Your task to perform on an android device: Go to Amazon Image 0: 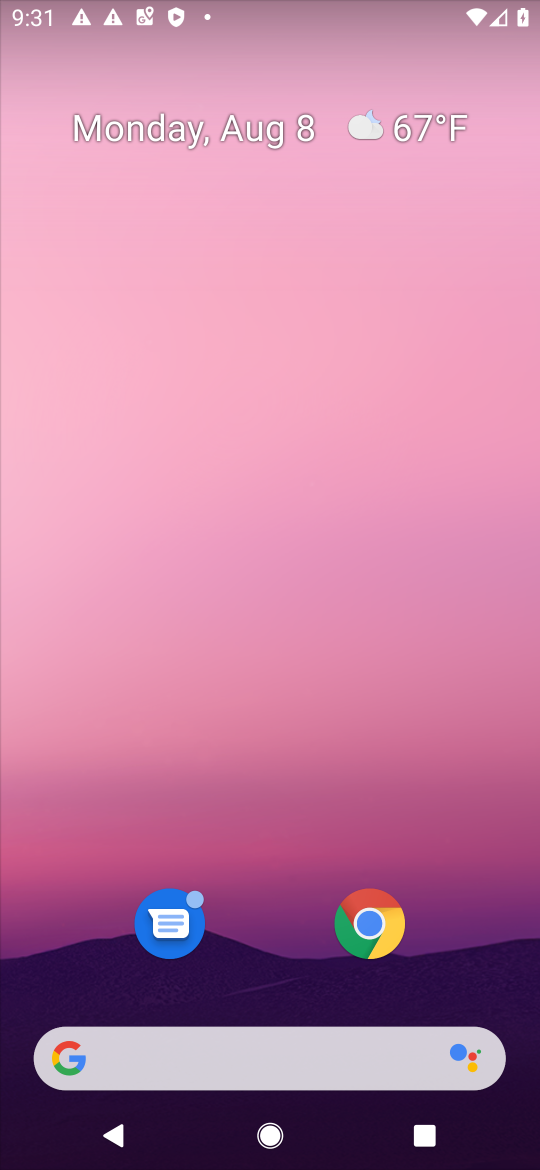
Step 0: click (114, 1069)
Your task to perform on an android device: Go to Amazon Image 1: 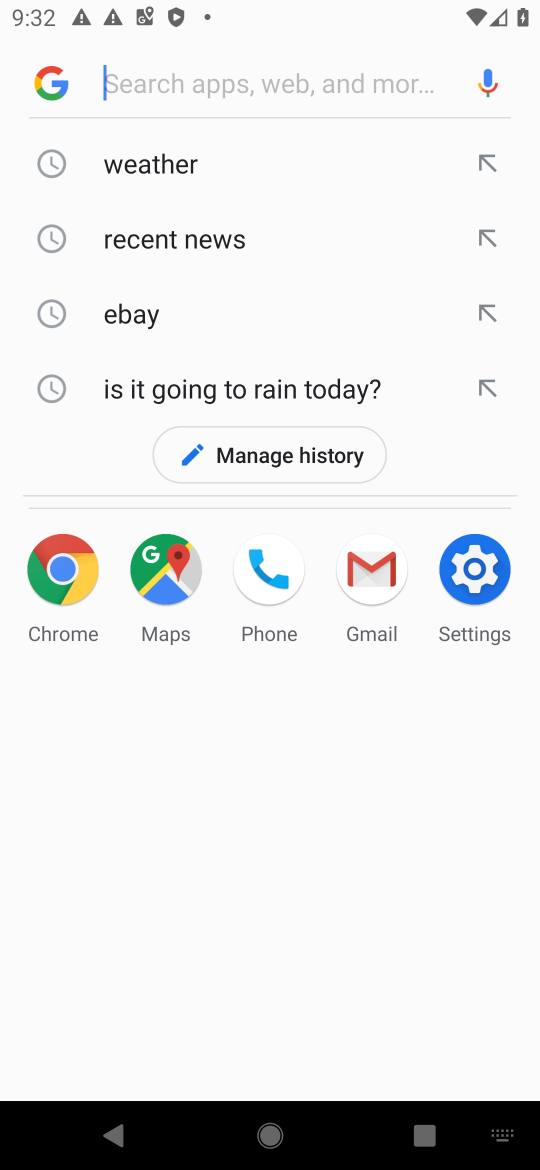
Step 1: type "Amazon"
Your task to perform on an android device: Go to Amazon Image 2: 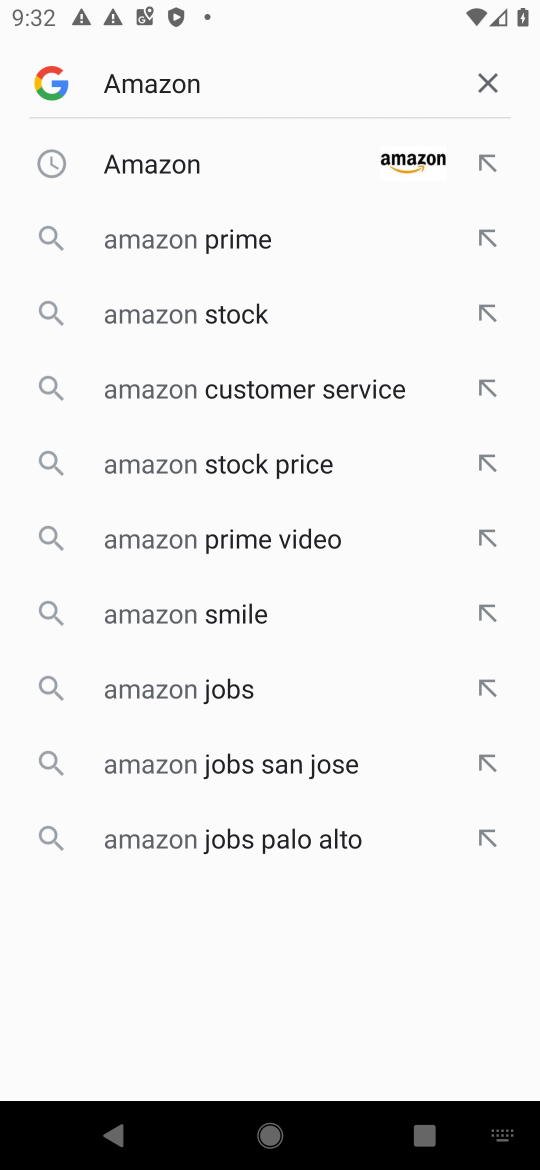
Step 2: click (129, 147)
Your task to perform on an android device: Go to Amazon Image 3: 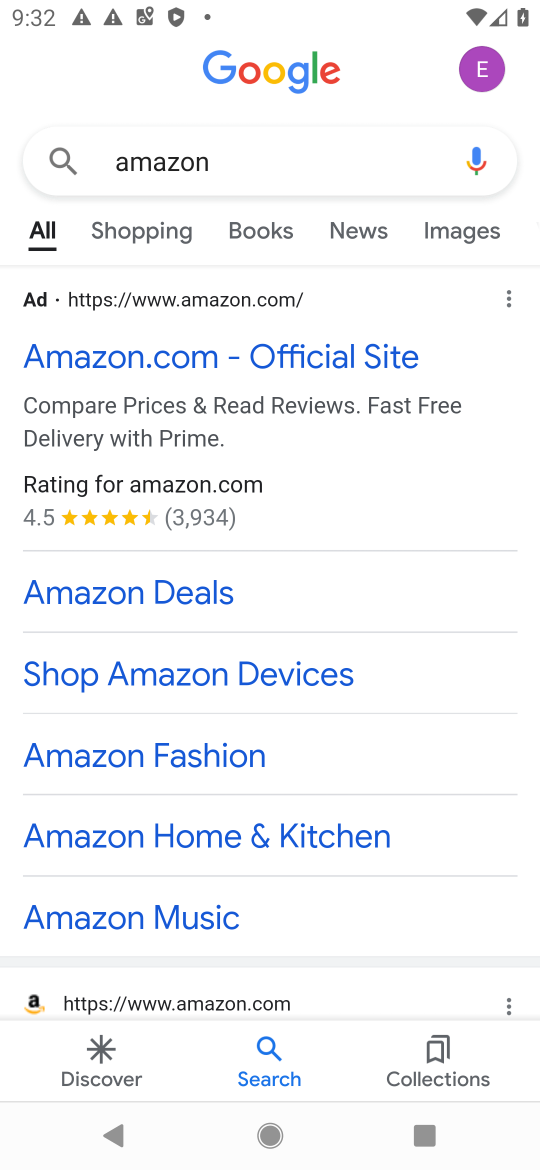
Step 3: task complete